Your task to perform on an android device: What's on my calendar tomorrow? Image 0: 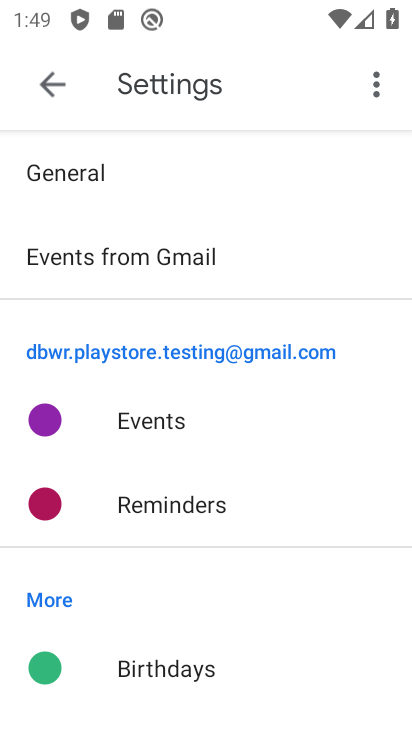
Step 0: press home button
Your task to perform on an android device: What's on my calendar tomorrow? Image 1: 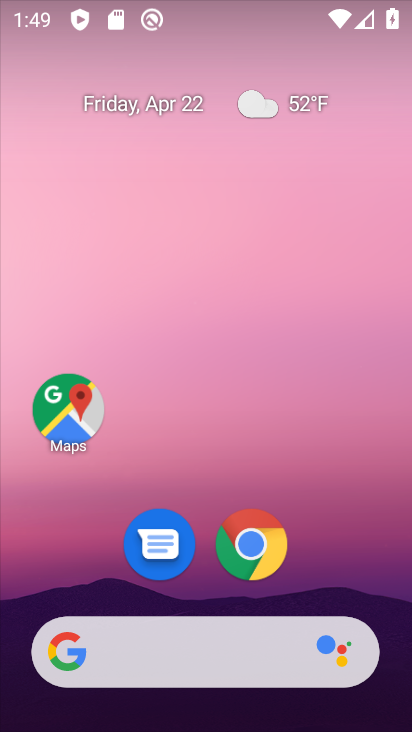
Step 1: drag from (362, 546) to (331, 196)
Your task to perform on an android device: What's on my calendar tomorrow? Image 2: 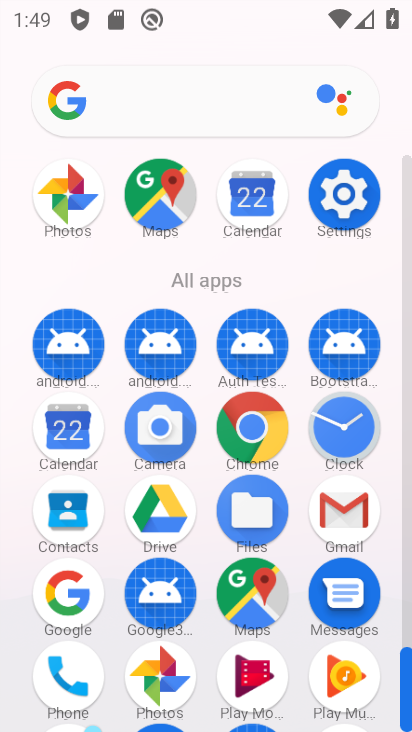
Step 2: click (72, 435)
Your task to perform on an android device: What's on my calendar tomorrow? Image 3: 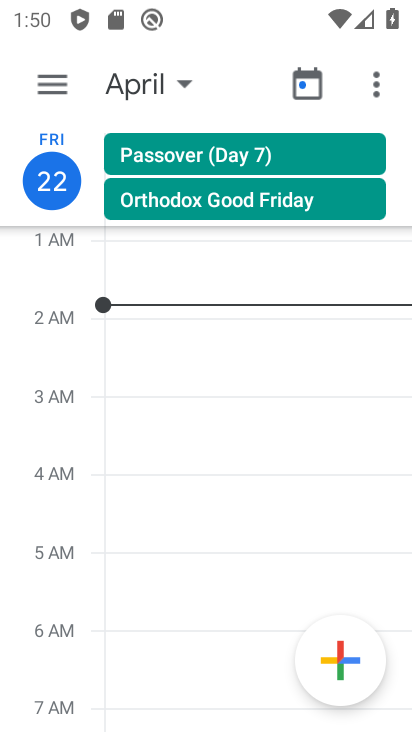
Step 3: click (63, 181)
Your task to perform on an android device: What's on my calendar tomorrow? Image 4: 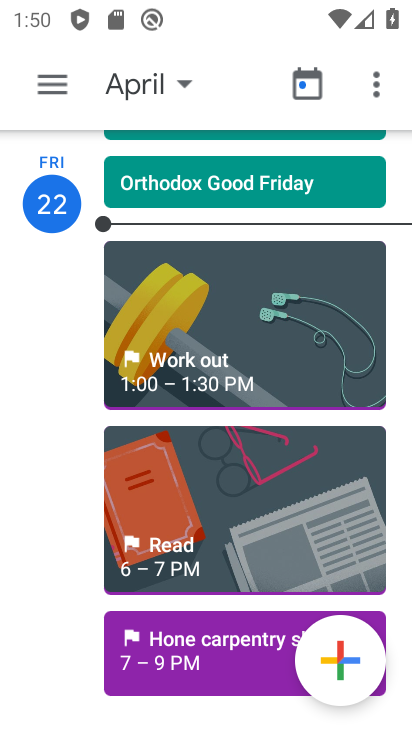
Step 4: task complete